Your task to perform on an android device: turn vacation reply on in the gmail app Image 0: 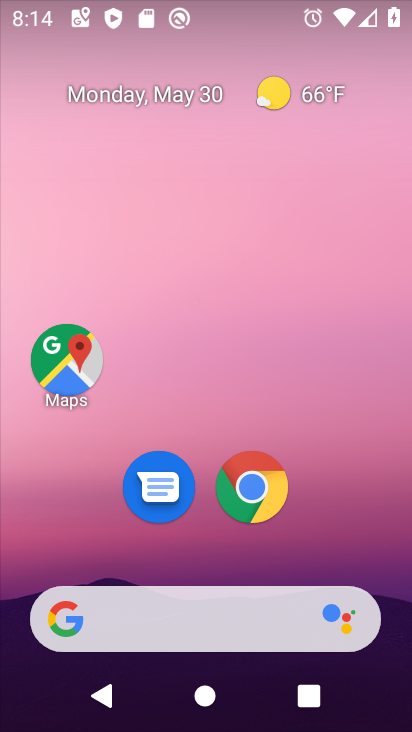
Step 0: press home button
Your task to perform on an android device: turn vacation reply on in the gmail app Image 1: 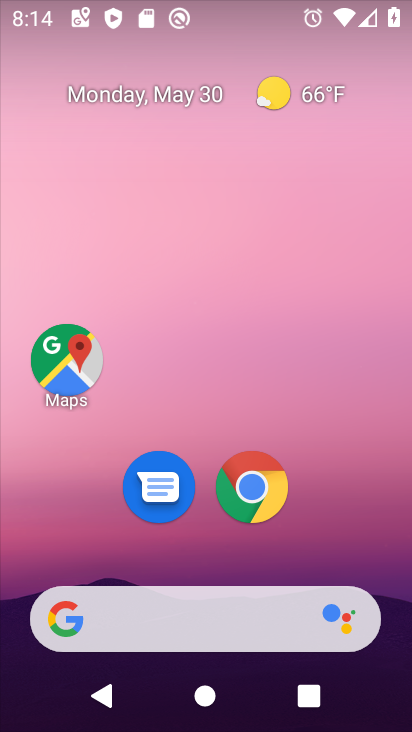
Step 1: drag from (301, 496) to (247, 166)
Your task to perform on an android device: turn vacation reply on in the gmail app Image 2: 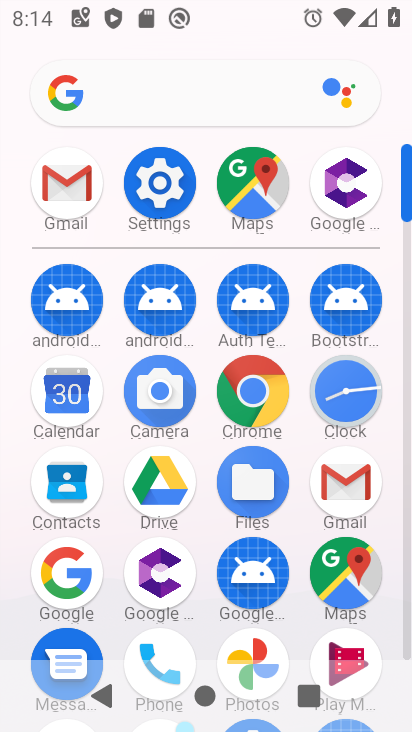
Step 2: click (62, 199)
Your task to perform on an android device: turn vacation reply on in the gmail app Image 3: 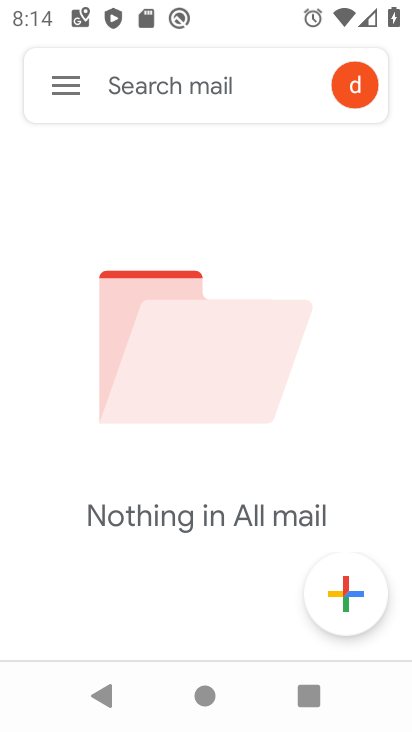
Step 3: click (75, 94)
Your task to perform on an android device: turn vacation reply on in the gmail app Image 4: 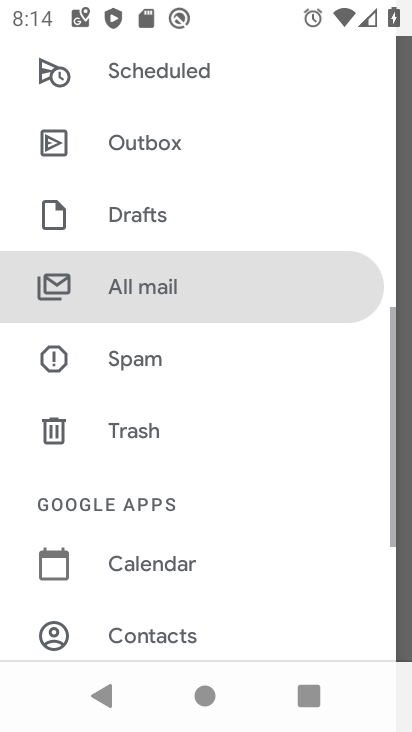
Step 4: drag from (265, 533) to (248, 197)
Your task to perform on an android device: turn vacation reply on in the gmail app Image 5: 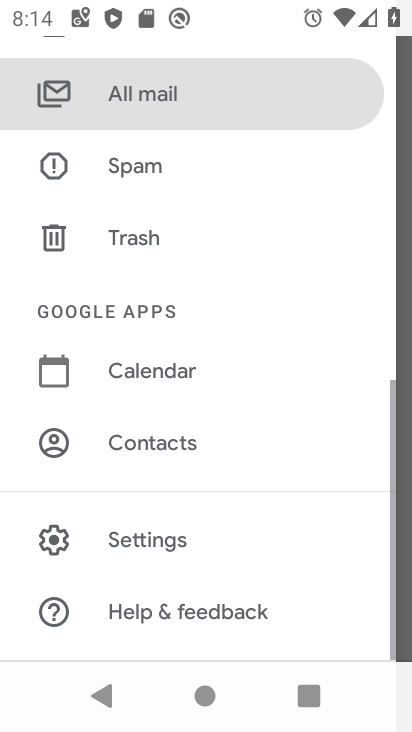
Step 5: click (152, 539)
Your task to perform on an android device: turn vacation reply on in the gmail app Image 6: 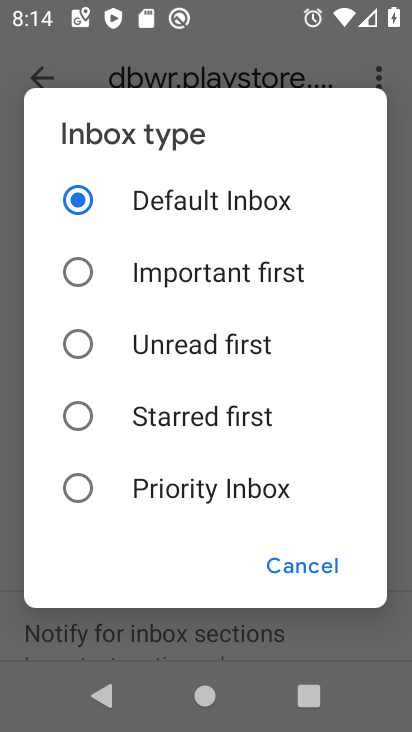
Step 6: click (311, 573)
Your task to perform on an android device: turn vacation reply on in the gmail app Image 7: 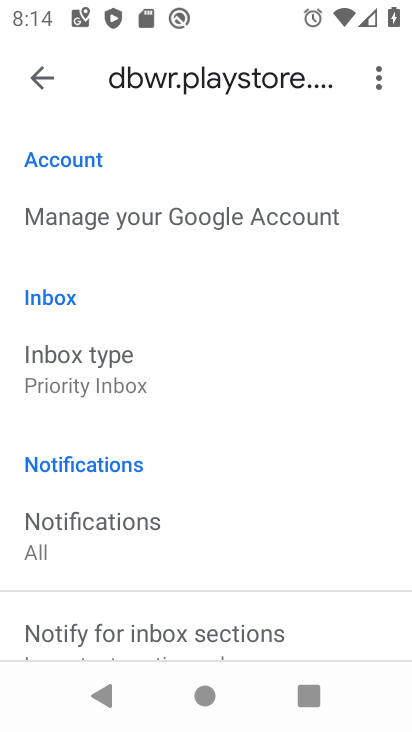
Step 7: drag from (278, 369) to (268, 135)
Your task to perform on an android device: turn vacation reply on in the gmail app Image 8: 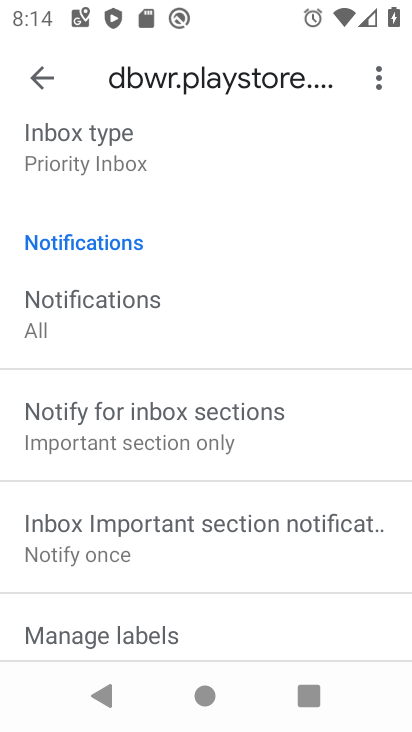
Step 8: drag from (327, 536) to (352, 124)
Your task to perform on an android device: turn vacation reply on in the gmail app Image 9: 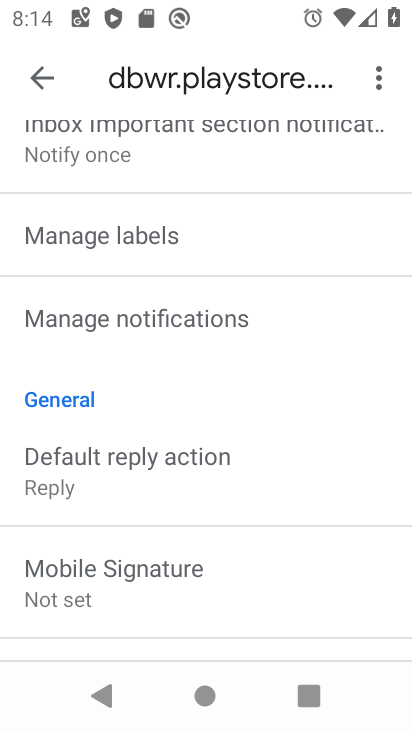
Step 9: drag from (282, 578) to (299, 153)
Your task to perform on an android device: turn vacation reply on in the gmail app Image 10: 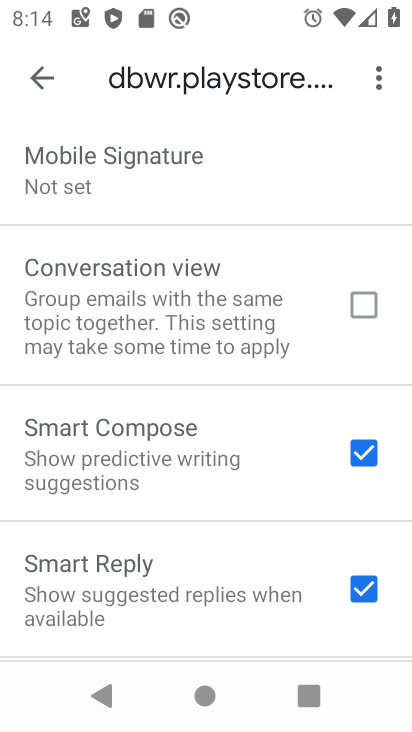
Step 10: drag from (246, 479) to (216, 285)
Your task to perform on an android device: turn vacation reply on in the gmail app Image 11: 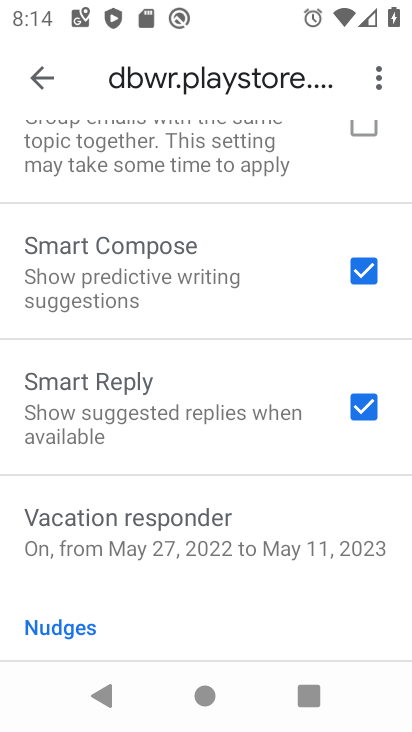
Step 11: click (140, 509)
Your task to perform on an android device: turn vacation reply on in the gmail app Image 12: 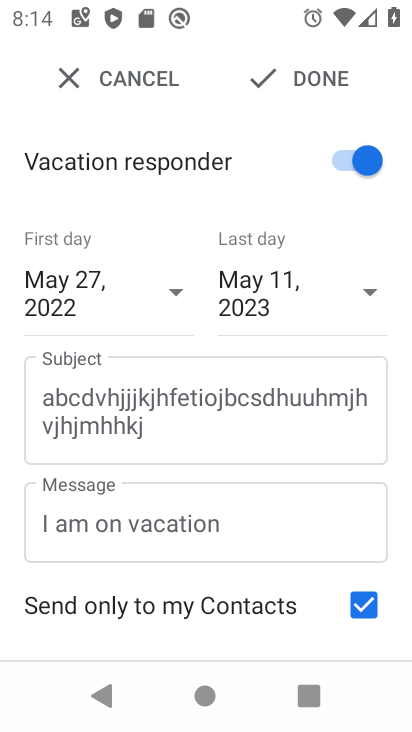
Step 12: task complete